Your task to perform on an android device: change your default location settings in chrome Image 0: 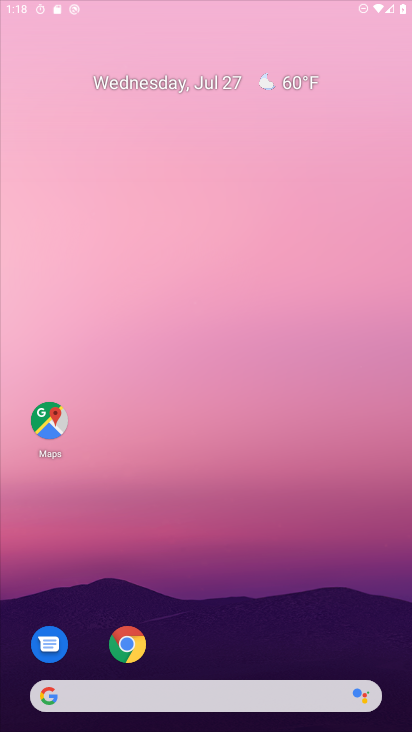
Step 0: drag from (173, 0) to (214, 1)
Your task to perform on an android device: change your default location settings in chrome Image 1: 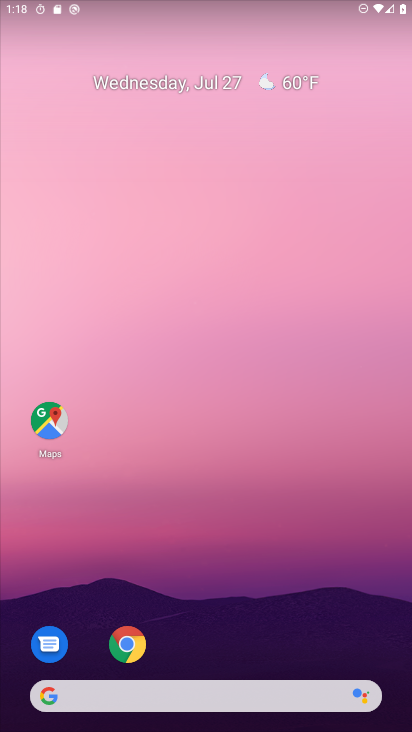
Step 1: click (120, 636)
Your task to perform on an android device: change your default location settings in chrome Image 2: 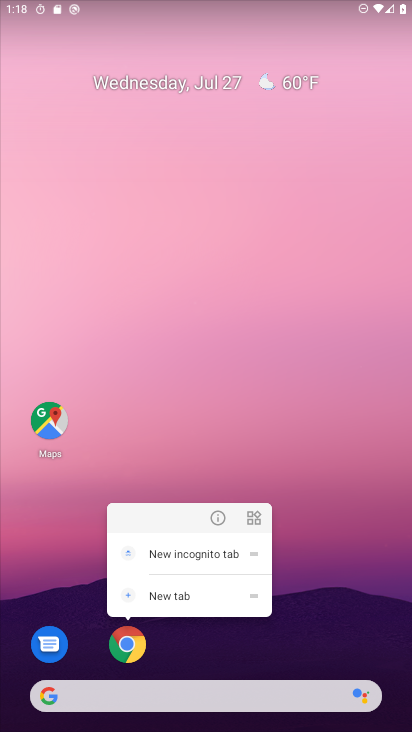
Step 2: click (219, 511)
Your task to perform on an android device: change your default location settings in chrome Image 3: 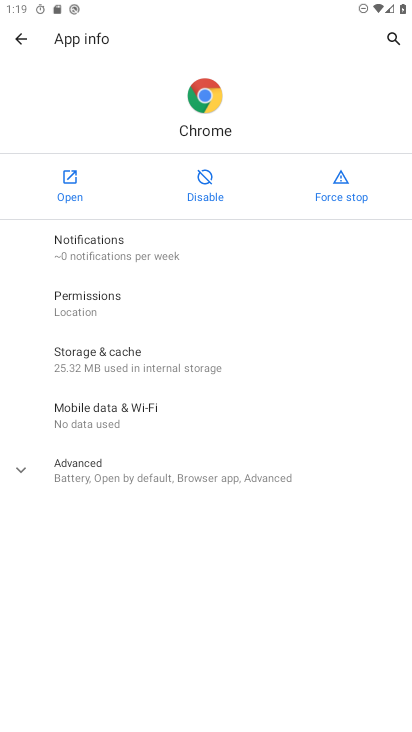
Step 3: click (61, 174)
Your task to perform on an android device: change your default location settings in chrome Image 4: 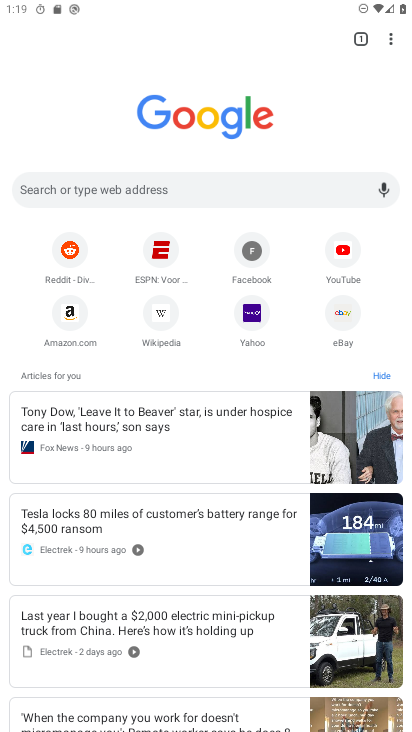
Step 4: drag from (133, 637) to (244, 151)
Your task to perform on an android device: change your default location settings in chrome Image 5: 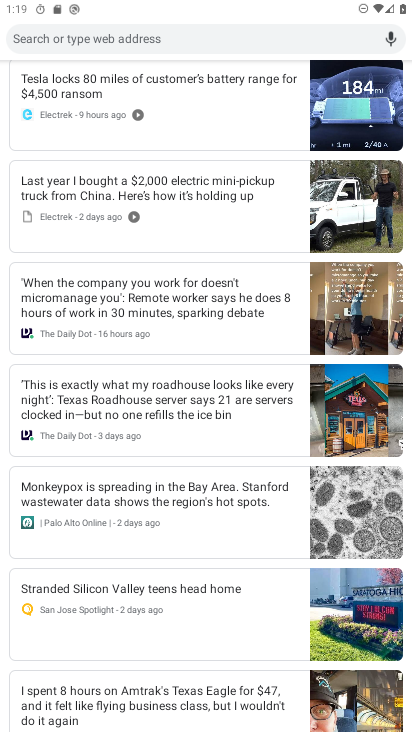
Step 5: drag from (195, 158) to (226, 728)
Your task to perform on an android device: change your default location settings in chrome Image 6: 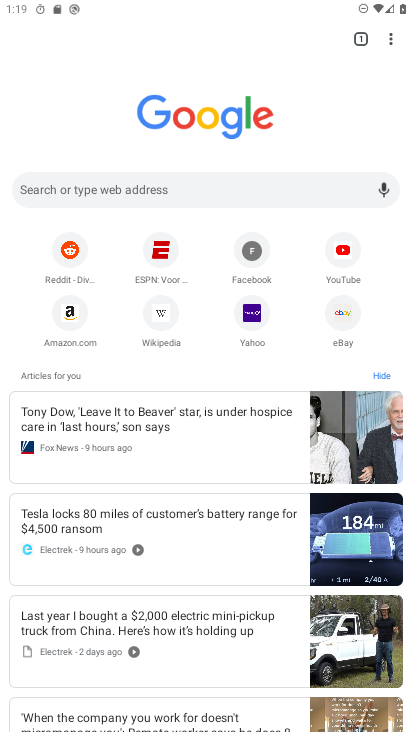
Step 6: drag from (221, 132) to (259, 369)
Your task to perform on an android device: change your default location settings in chrome Image 7: 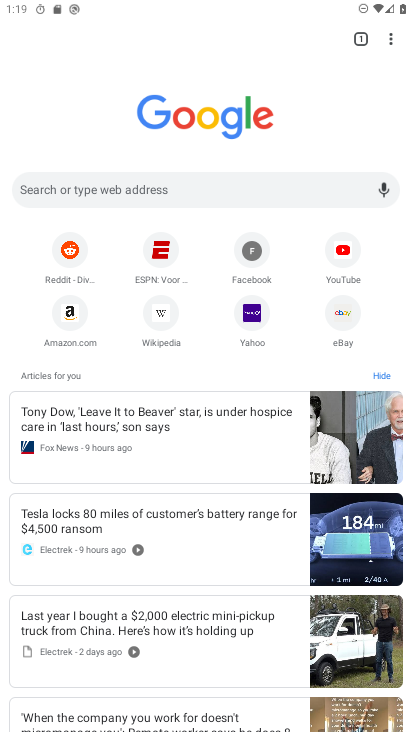
Step 7: drag from (386, 35) to (287, 372)
Your task to perform on an android device: change your default location settings in chrome Image 8: 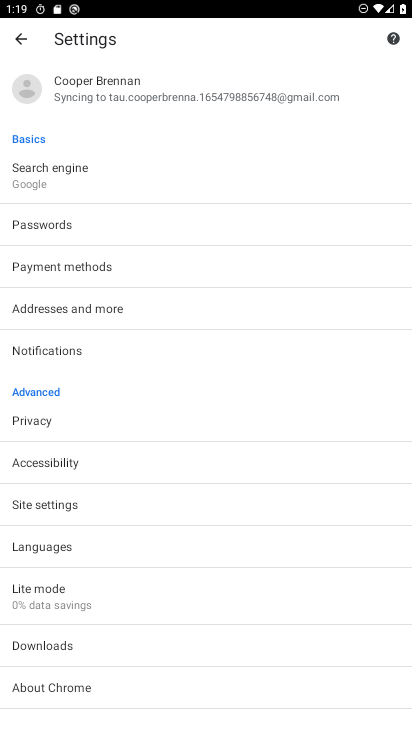
Step 8: drag from (118, 598) to (137, 381)
Your task to perform on an android device: change your default location settings in chrome Image 9: 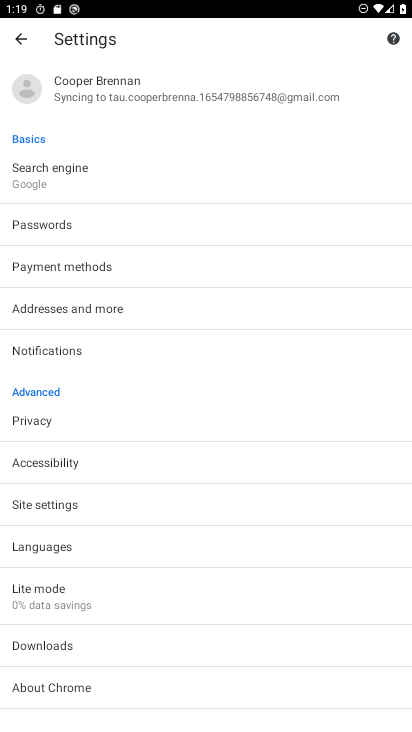
Step 9: click (127, 505)
Your task to perform on an android device: change your default location settings in chrome Image 10: 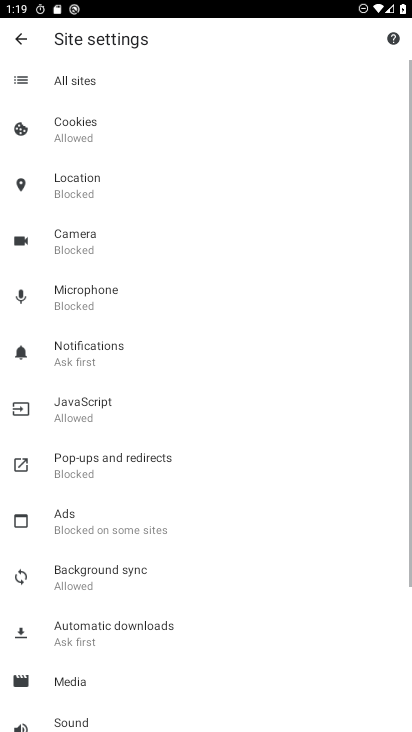
Step 10: click (105, 197)
Your task to perform on an android device: change your default location settings in chrome Image 11: 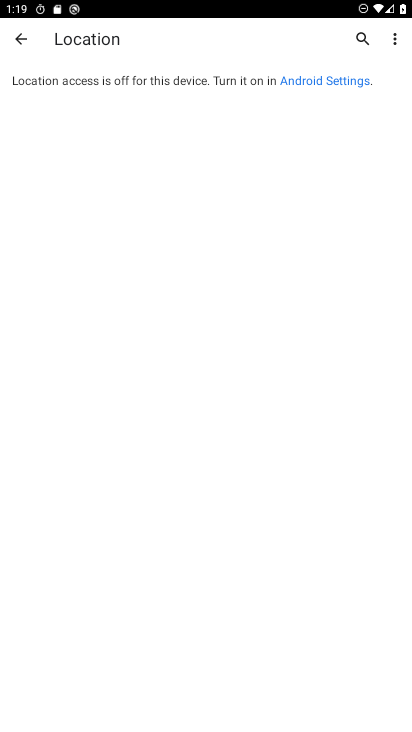
Step 11: task complete